Your task to perform on an android device: open a bookmark in the chrome app Image 0: 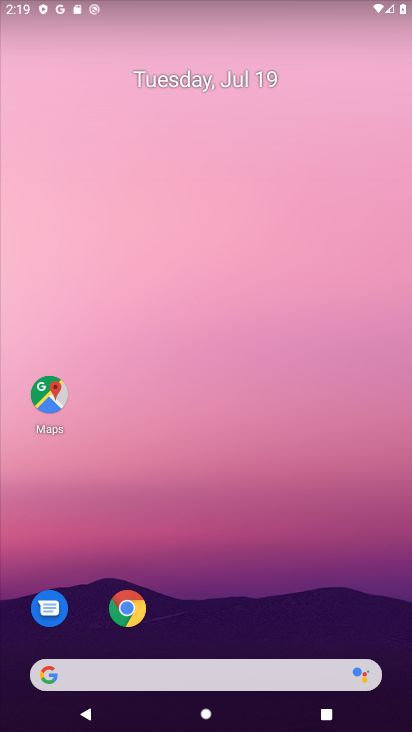
Step 0: drag from (291, 616) to (278, 100)
Your task to perform on an android device: open a bookmark in the chrome app Image 1: 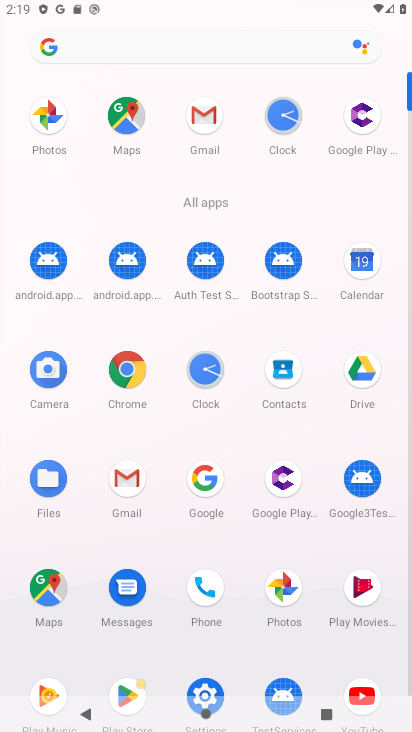
Step 1: click (125, 375)
Your task to perform on an android device: open a bookmark in the chrome app Image 2: 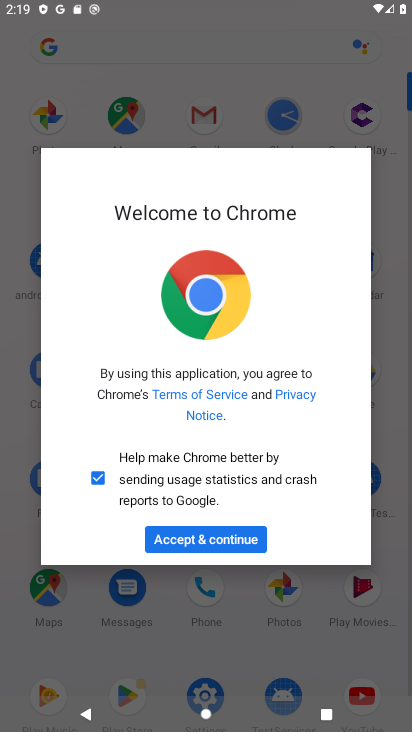
Step 2: click (237, 541)
Your task to perform on an android device: open a bookmark in the chrome app Image 3: 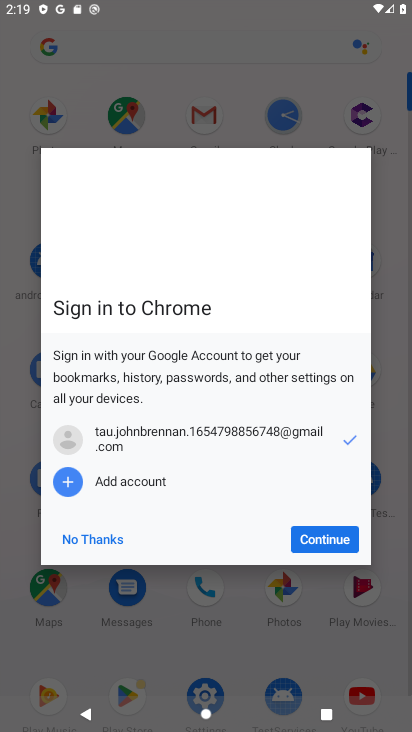
Step 3: click (322, 534)
Your task to perform on an android device: open a bookmark in the chrome app Image 4: 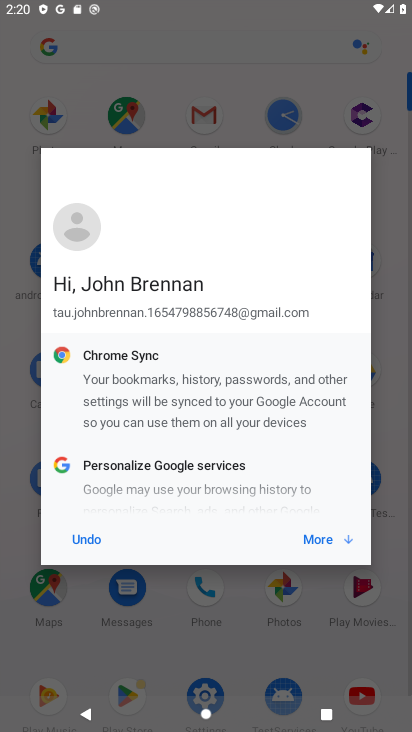
Step 4: click (308, 544)
Your task to perform on an android device: open a bookmark in the chrome app Image 5: 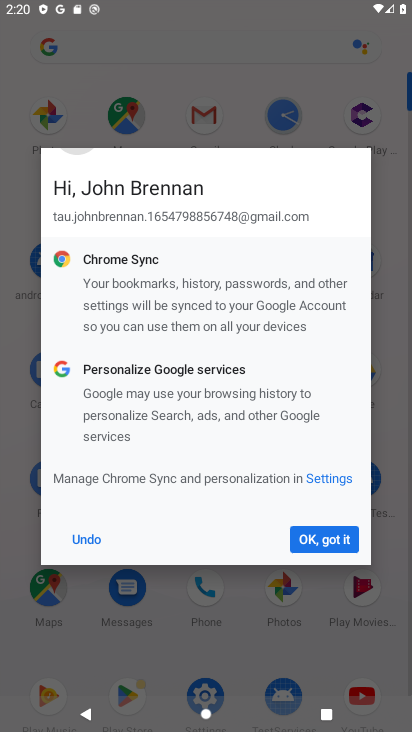
Step 5: click (308, 541)
Your task to perform on an android device: open a bookmark in the chrome app Image 6: 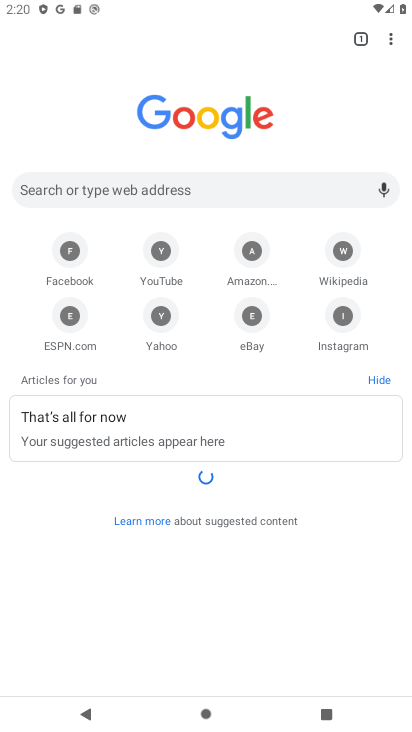
Step 6: drag from (396, 37) to (291, 156)
Your task to perform on an android device: open a bookmark in the chrome app Image 7: 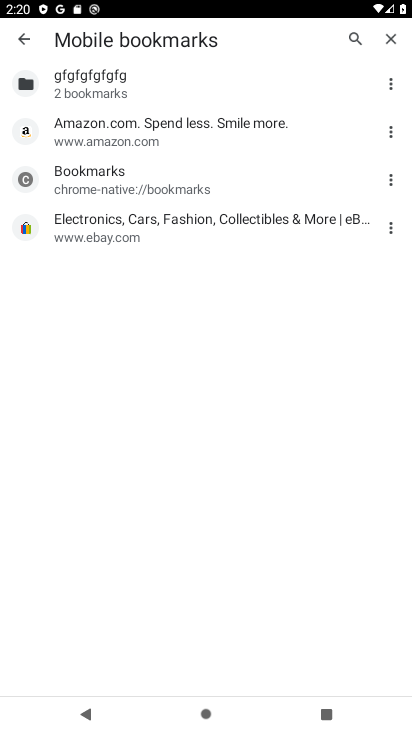
Step 7: click (152, 134)
Your task to perform on an android device: open a bookmark in the chrome app Image 8: 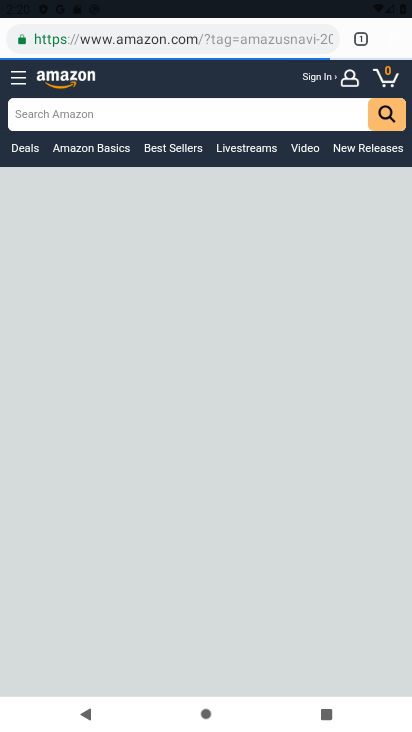
Step 8: task complete